Your task to perform on an android device: turn off translation in the chrome app Image 0: 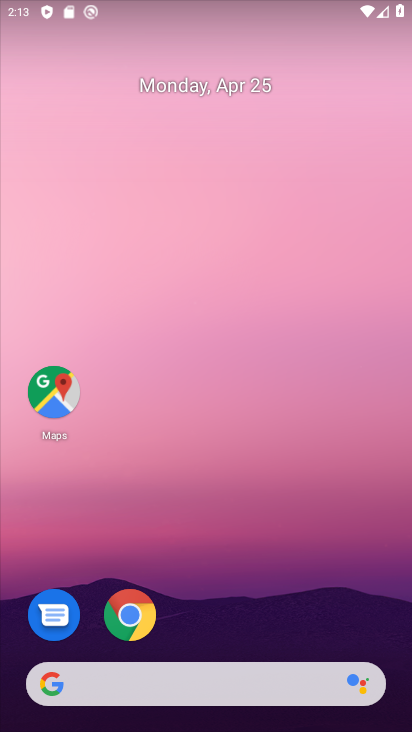
Step 0: click (129, 616)
Your task to perform on an android device: turn off translation in the chrome app Image 1: 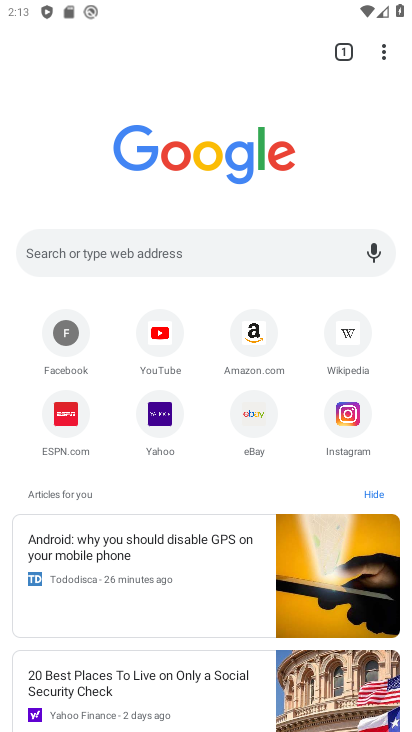
Step 1: click (384, 59)
Your task to perform on an android device: turn off translation in the chrome app Image 2: 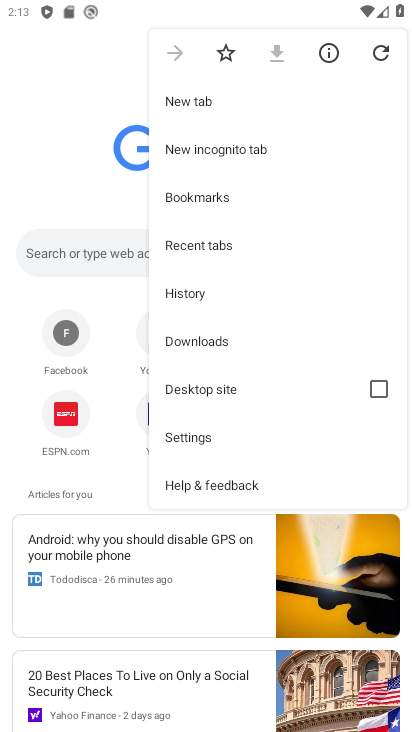
Step 2: click (187, 435)
Your task to perform on an android device: turn off translation in the chrome app Image 3: 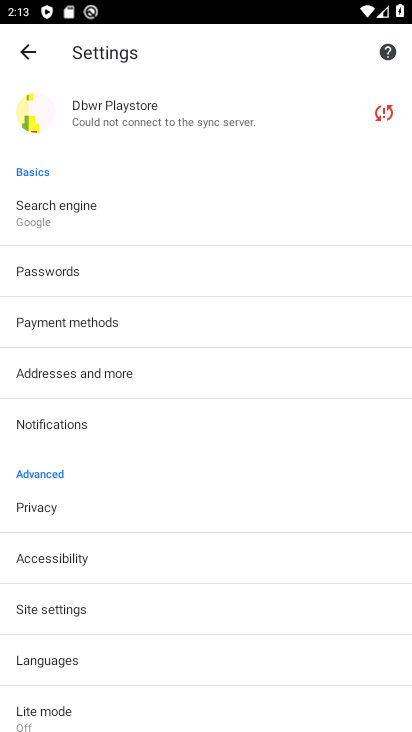
Step 3: click (63, 660)
Your task to perform on an android device: turn off translation in the chrome app Image 4: 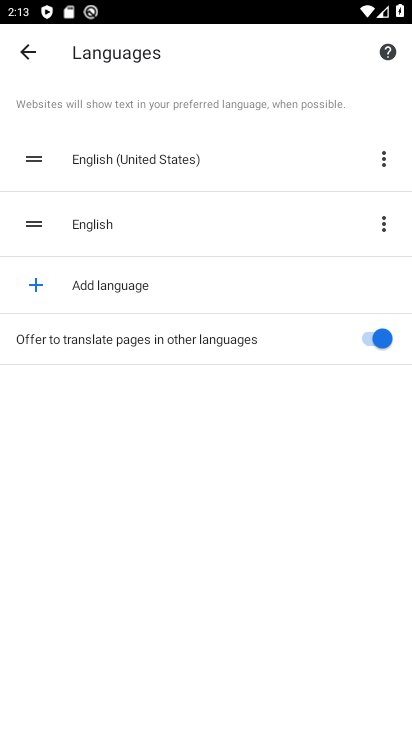
Step 4: click (366, 336)
Your task to perform on an android device: turn off translation in the chrome app Image 5: 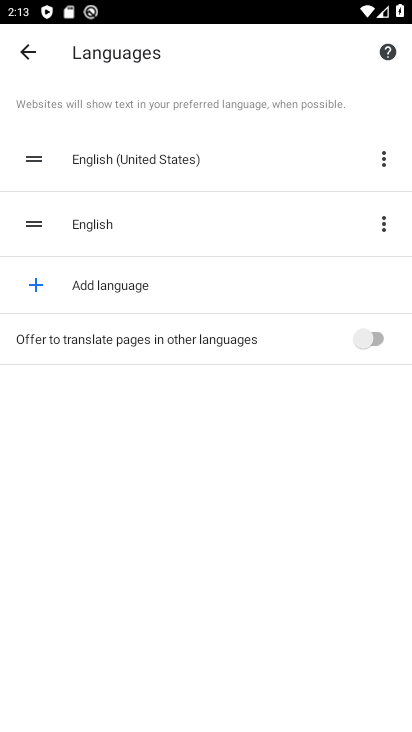
Step 5: task complete